Your task to perform on an android device: turn notification dots off Image 0: 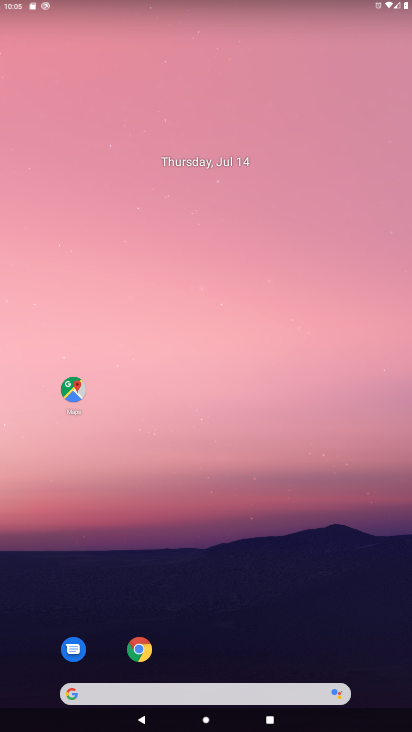
Step 0: drag from (180, 700) to (228, 104)
Your task to perform on an android device: turn notification dots off Image 1: 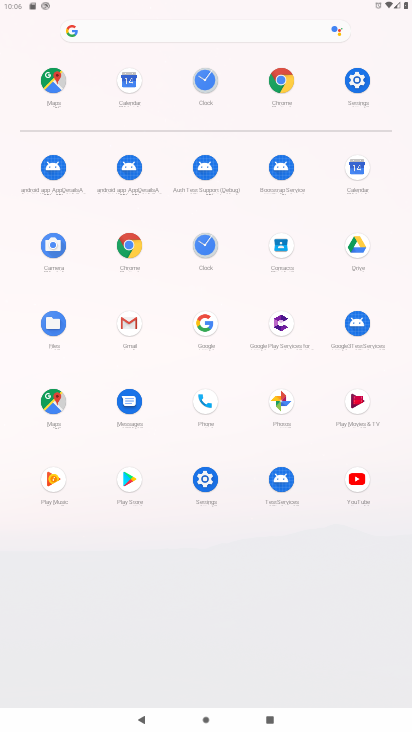
Step 1: click (353, 95)
Your task to perform on an android device: turn notification dots off Image 2: 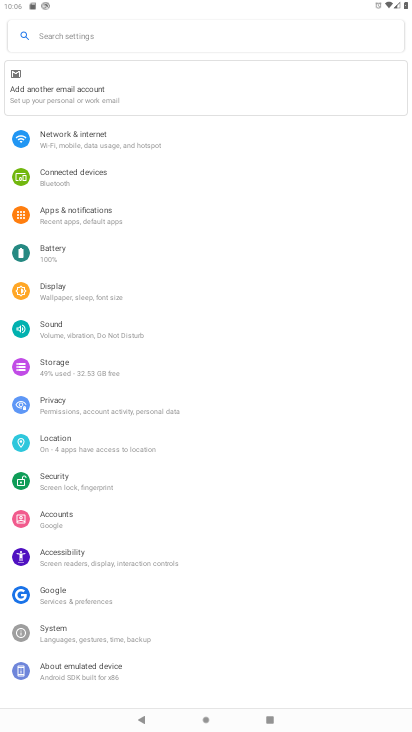
Step 2: click (110, 207)
Your task to perform on an android device: turn notification dots off Image 3: 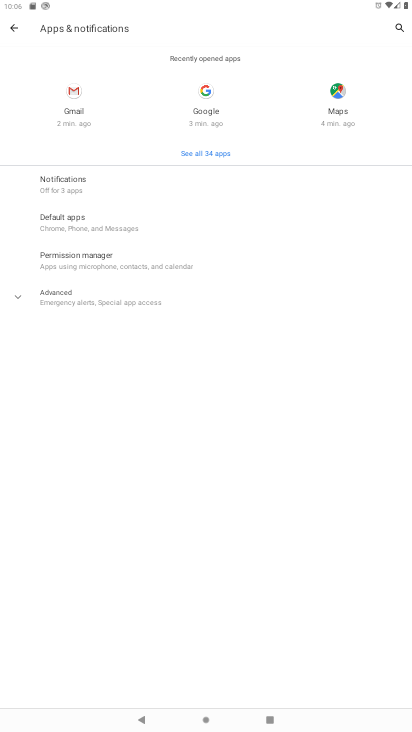
Step 3: click (127, 305)
Your task to perform on an android device: turn notification dots off Image 4: 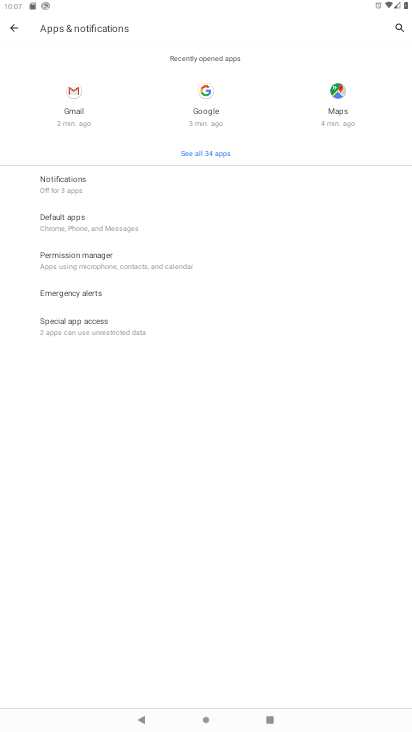
Step 4: click (122, 188)
Your task to perform on an android device: turn notification dots off Image 5: 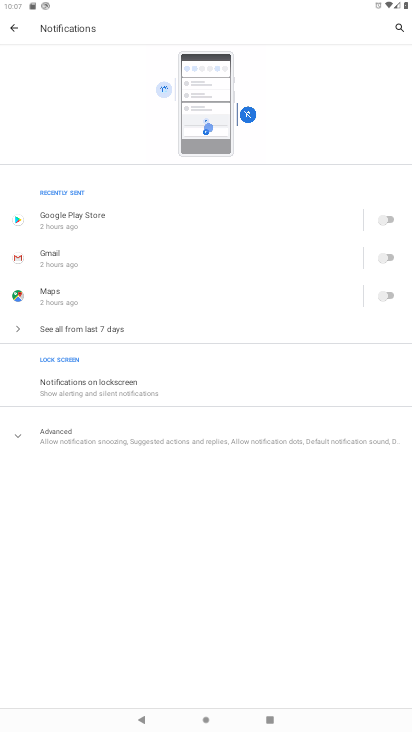
Step 5: click (158, 435)
Your task to perform on an android device: turn notification dots off Image 6: 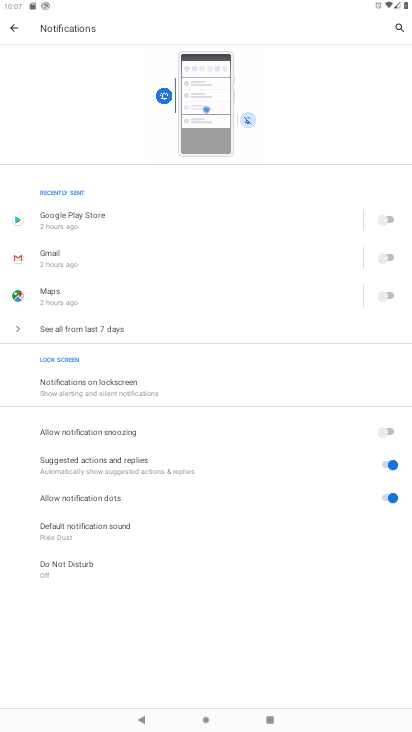
Step 6: click (391, 496)
Your task to perform on an android device: turn notification dots off Image 7: 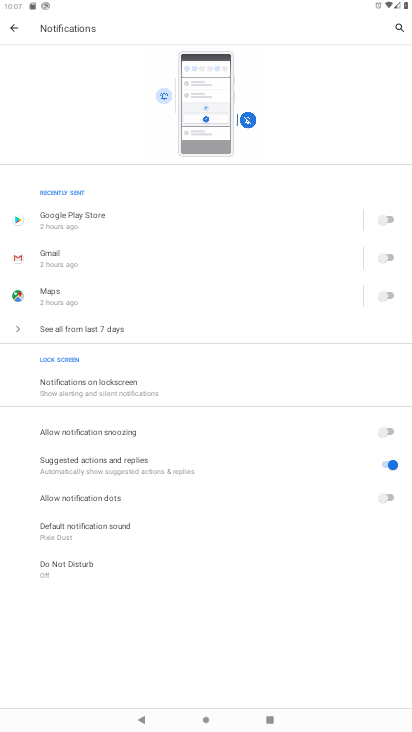
Step 7: task complete